Your task to perform on an android device: What's the weather today? Image 0: 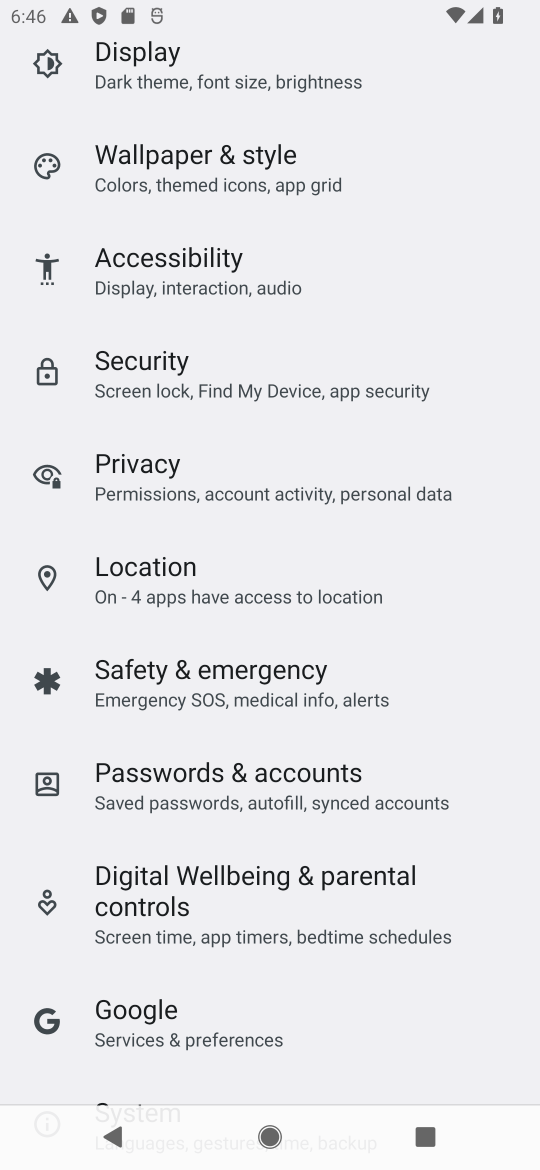
Step 0: press home button
Your task to perform on an android device: What's the weather today? Image 1: 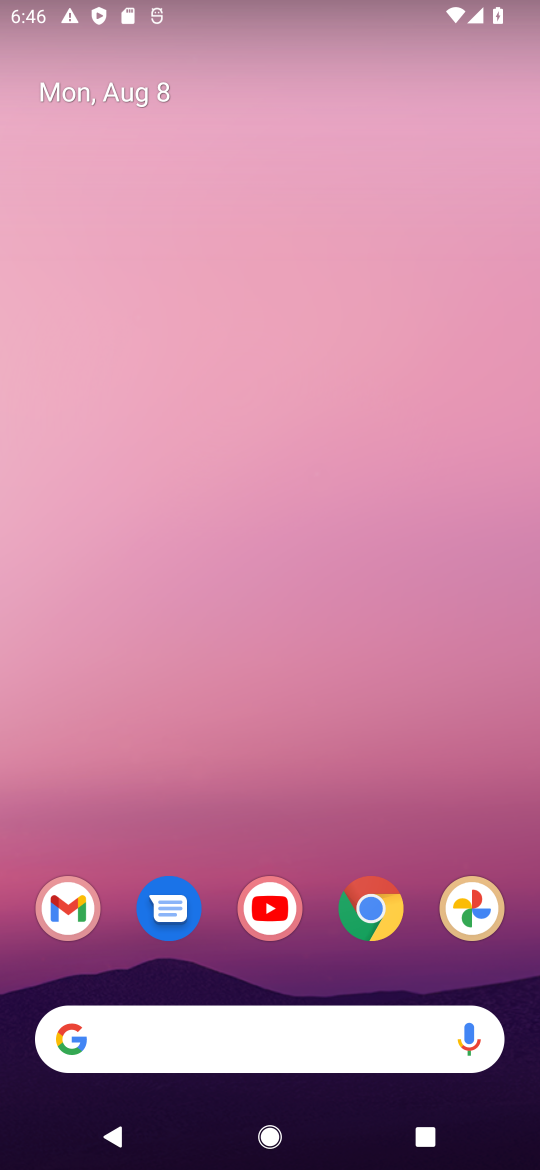
Step 1: click (183, 1028)
Your task to perform on an android device: What's the weather today? Image 2: 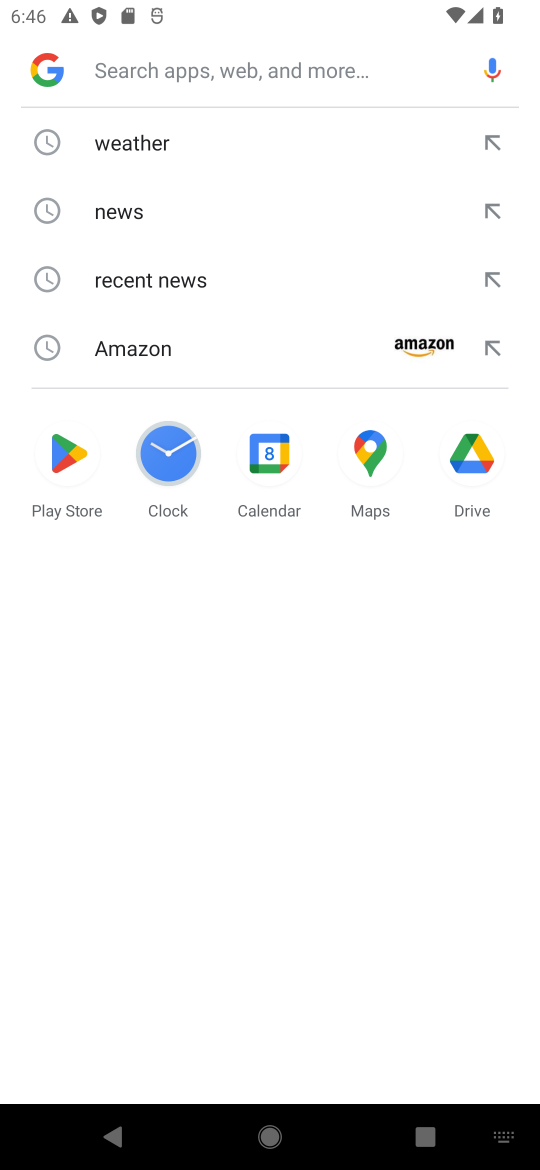
Step 2: click (175, 147)
Your task to perform on an android device: What's the weather today? Image 3: 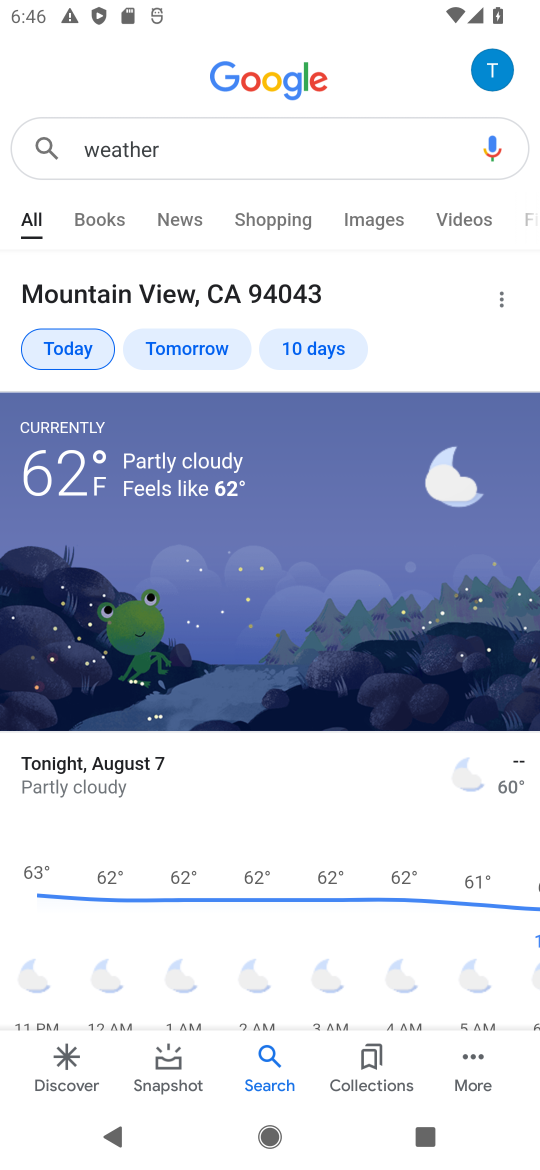
Step 3: task complete